Your task to perform on an android device: Open Youtube and go to "Your channel" Image 0: 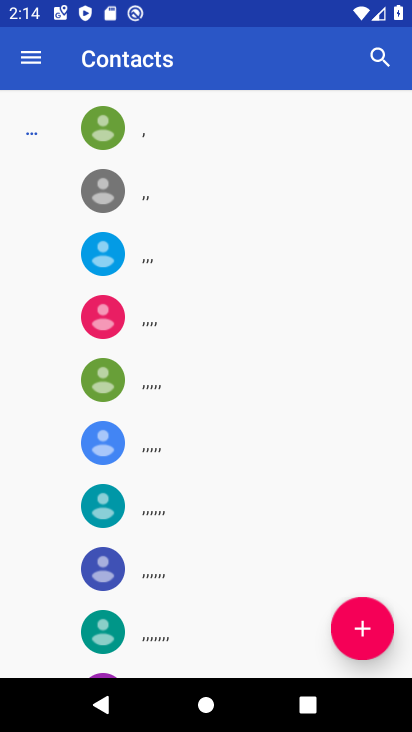
Step 0: press home button
Your task to perform on an android device: Open Youtube and go to "Your channel" Image 1: 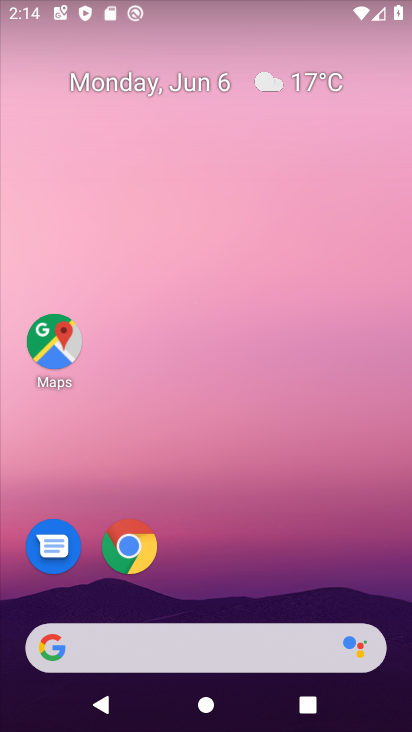
Step 1: drag from (283, 544) to (276, 74)
Your task to perform on an android device: Open Youtube and go to "Your channel" Image 2: 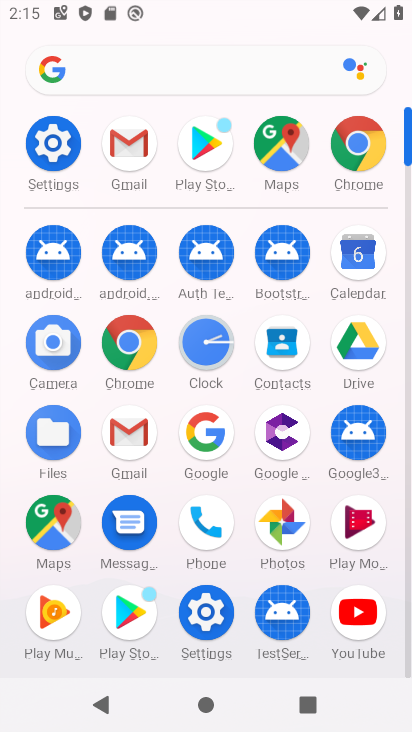
Step 2: click (373, 610)
Your task to perform on an android device: Open Youtube and go to "Your channel" Image 3: 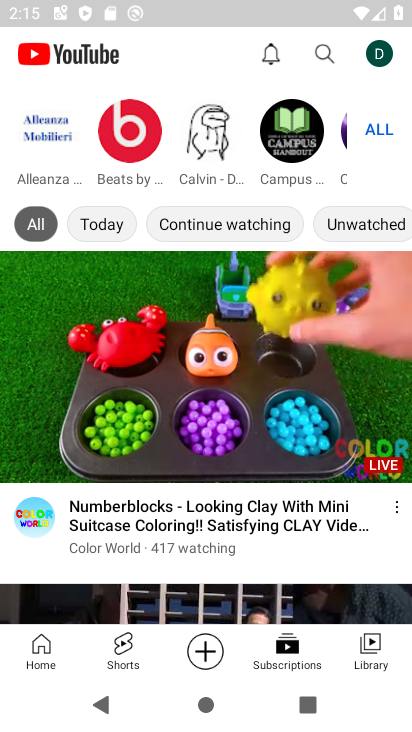
Step 3: click (377, 62)
Your task to perform on an android device: Open Youtube and go to "Your channel" Image 4: 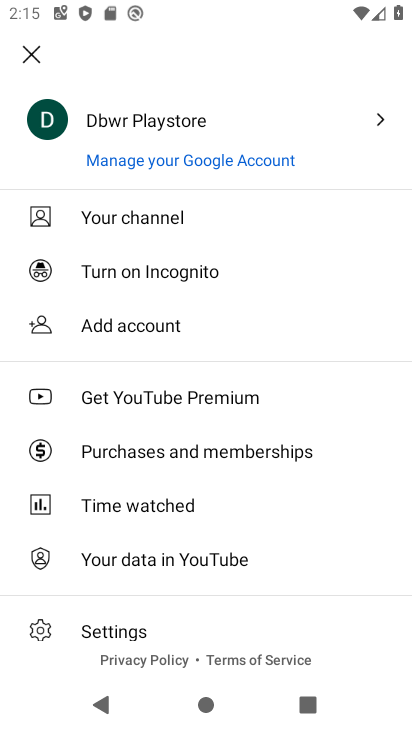
Step 4: click (196, 217)
Your task to perform on an android device: Open Youtube and go to "Your channel" Image 5: 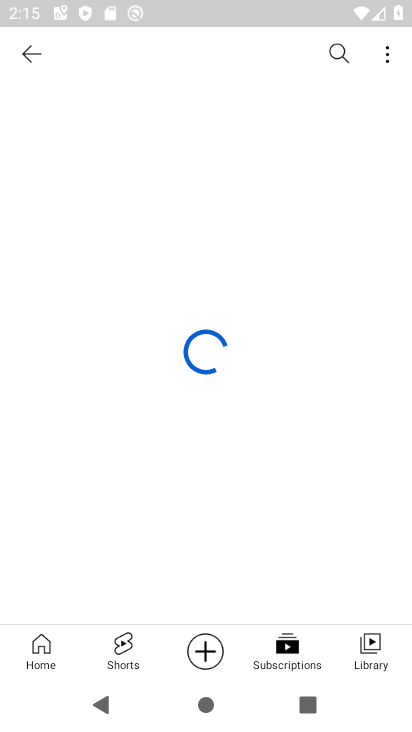
Step 5: task complete